Your task to perform on an android device: all mails in gmail Image 0: 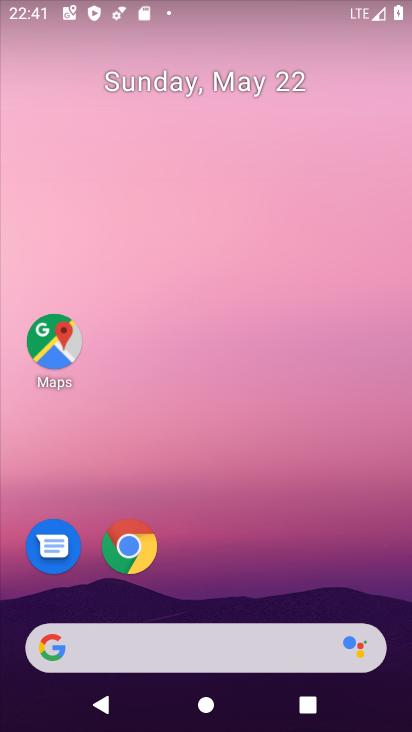
Step 0: click (274, 198)
Your task to perform on an android device: all mails in gmail Image 1: 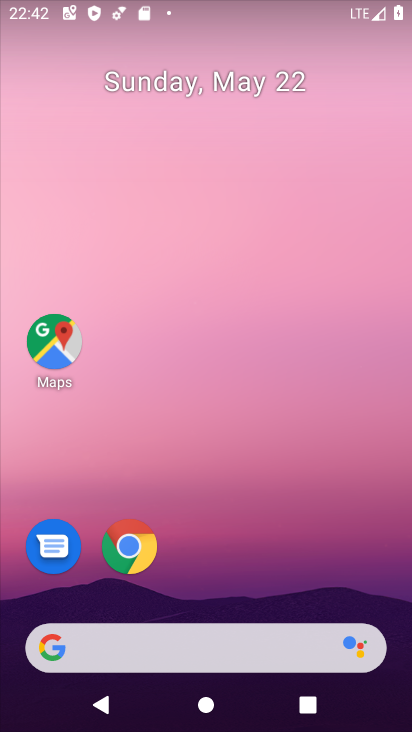
Step 1: drag from (210, 571) to (250, 252)
Your task to perform on an android device: all mails in gmail Image 2: 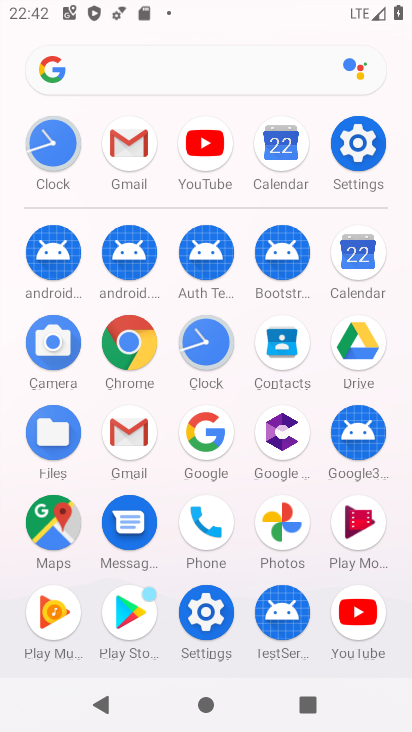
Step 2: click (115, 424)
Your task to perform on an android device: all mails in gmail Image 3: 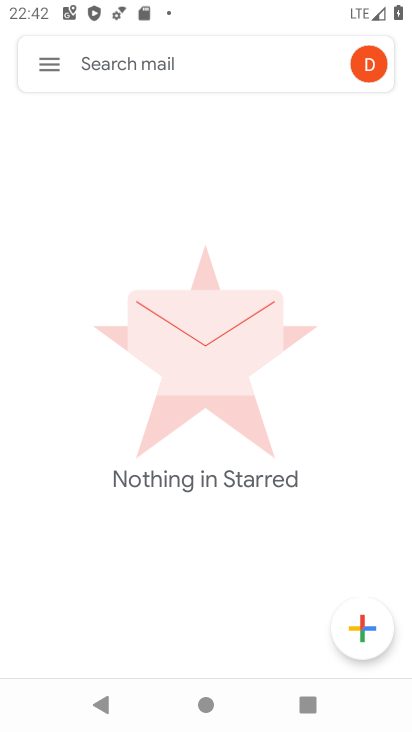
Step 3: click (51, 65)
Your task to perform on an android device: all mails in gmail Image 4: 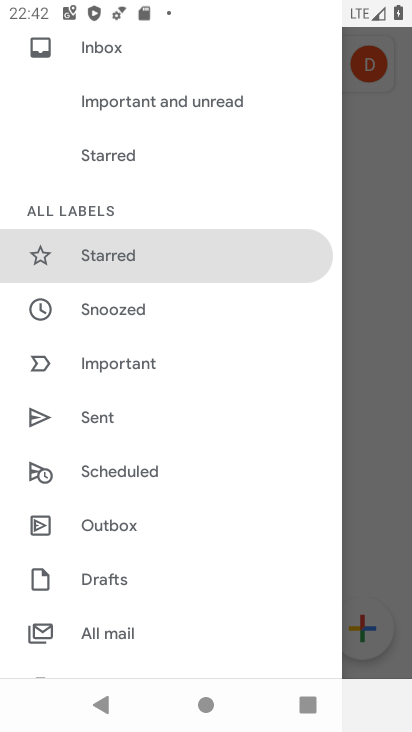
Step 4: drag from (149, 464) to (301, 21)
Your task to perform on an android device: all mails in gmail Image 5: 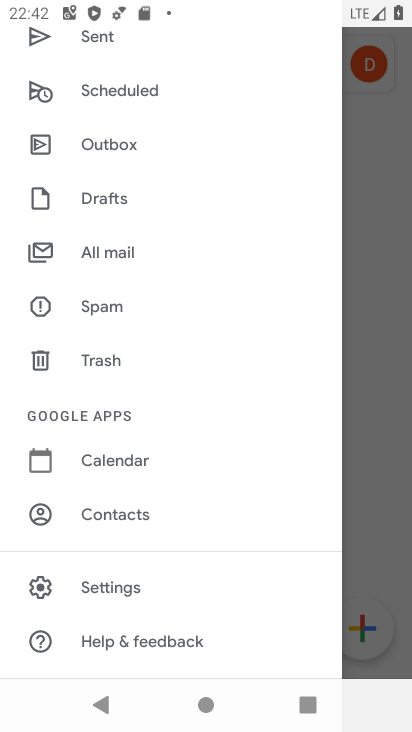
Step 5: click (144, 249)
Your task to perform on an android device: all mails in gmail Image 6: 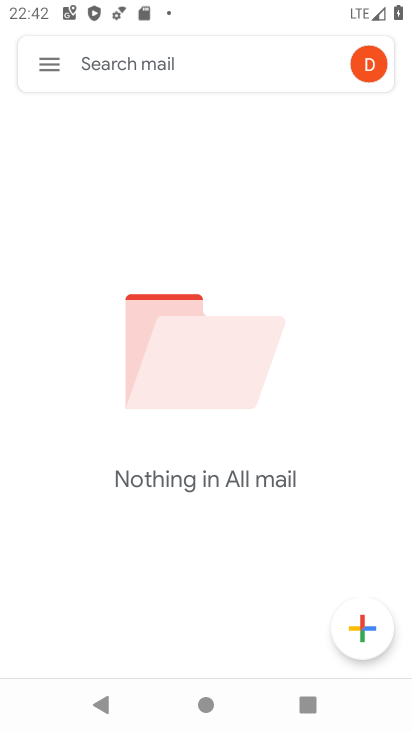
Step 6: drag from (215, 497) to (288, 16)
Your task to perform on an android device: all mails in gmail Image 7: 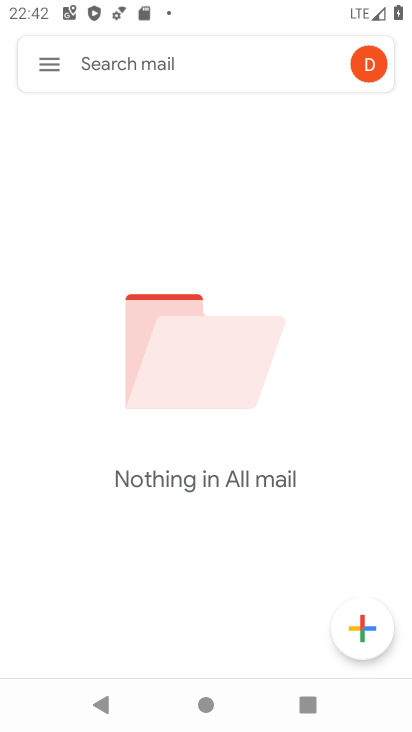
Step 7: click (265, 248)
Your task to perform on an android device: all mails in gmail Image 8: 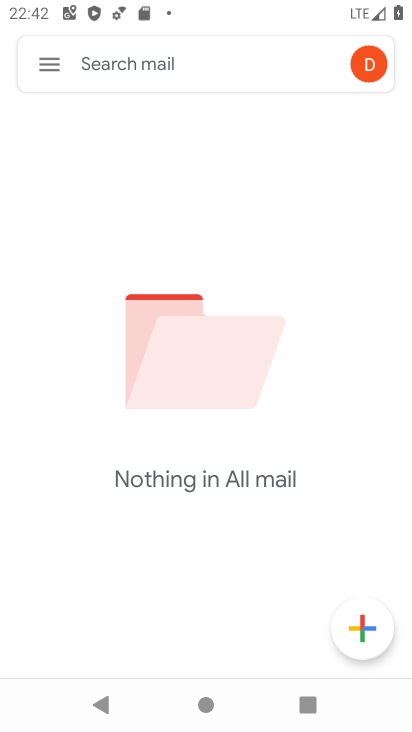
Step 8: task complete